Your task to perform on an android device: Open my contact list Image 0: 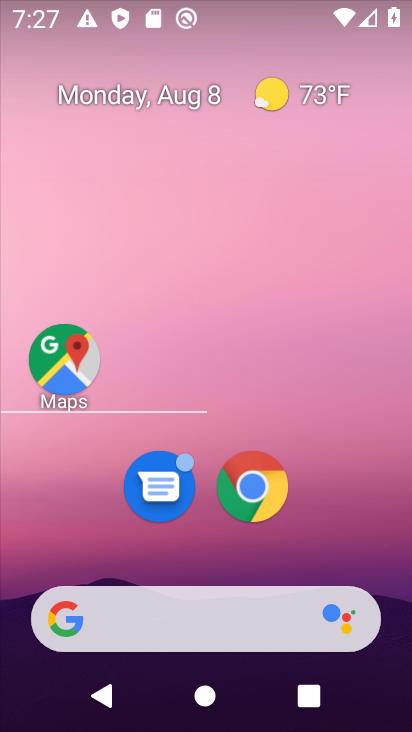
Step 0: drag from (234, 332) to (239, 45)
Your task to perform on an android device: Open my contact list Image 1: 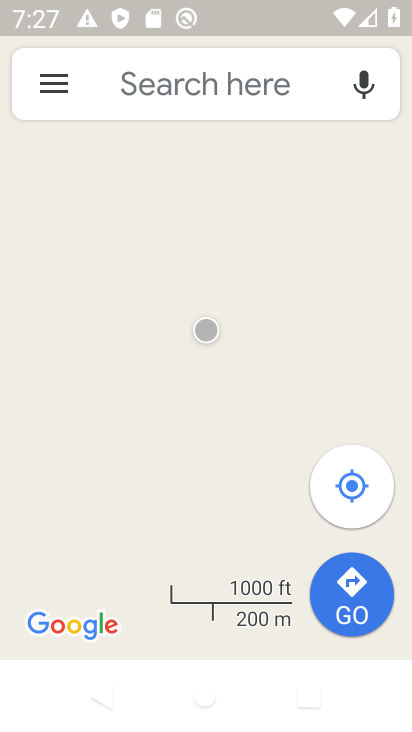
Step 1: press home button
Your task to perform on an android device: Open my contact list Image 2: 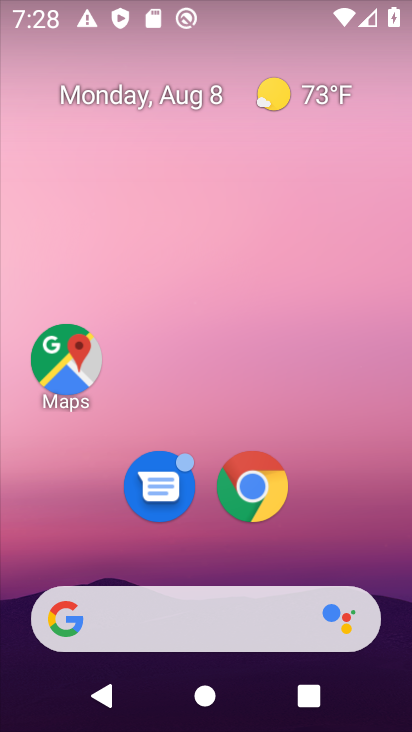
Step 2: drag from (179, 659) to (191, 199)
Your task to perform on an android device: Open my contact list Image 3: 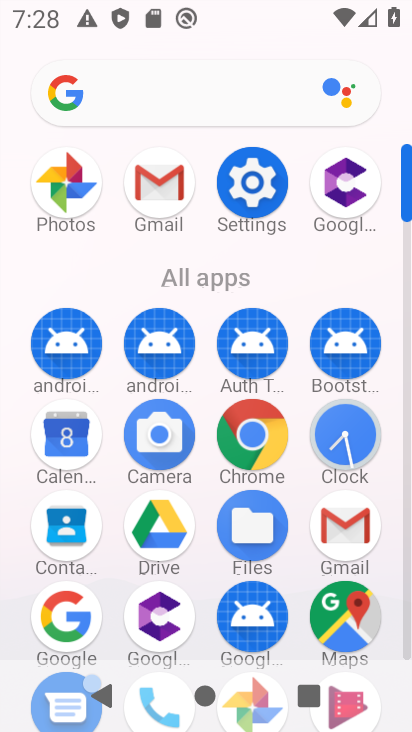
Step 3: drag from (280, 581) to (285, 199)
Your task to perform on an android device: Open my contact list Image 4: 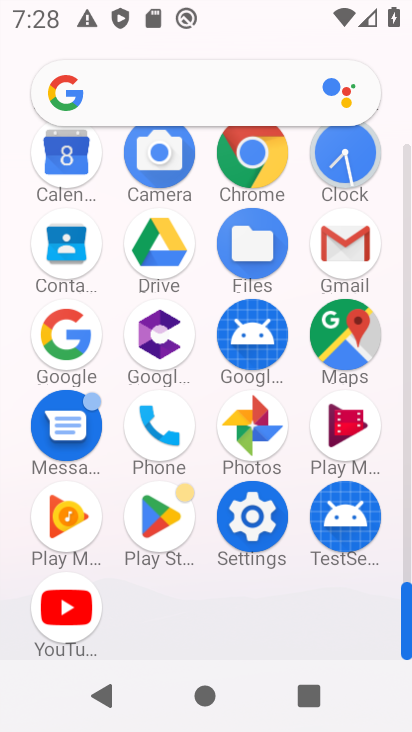
Step 4: click (159, 434)
Your task to perform on an android device: Open my contact list Image 5: 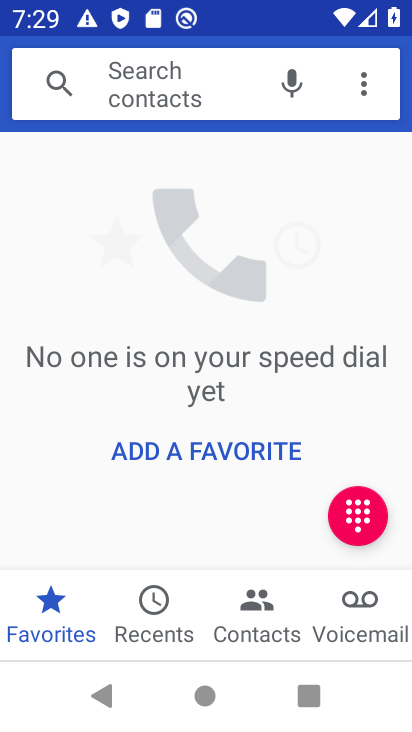
Step 5: click (252, 644)
Your task to perform on an android device: Open my contact list Image 6: 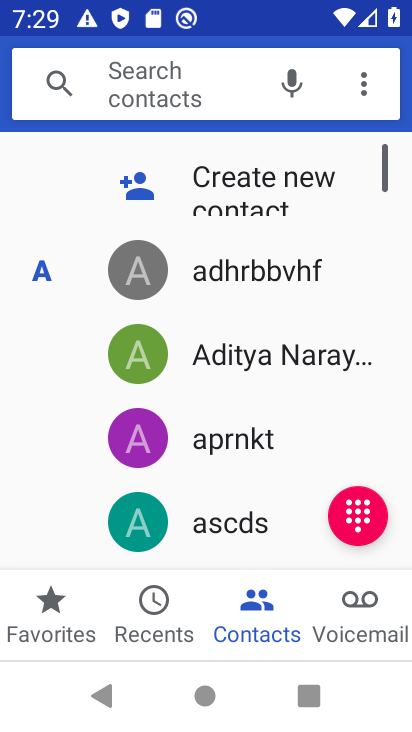
Step 6: task complete